Your task to perform on an android device: Open wifi settings Image 0: 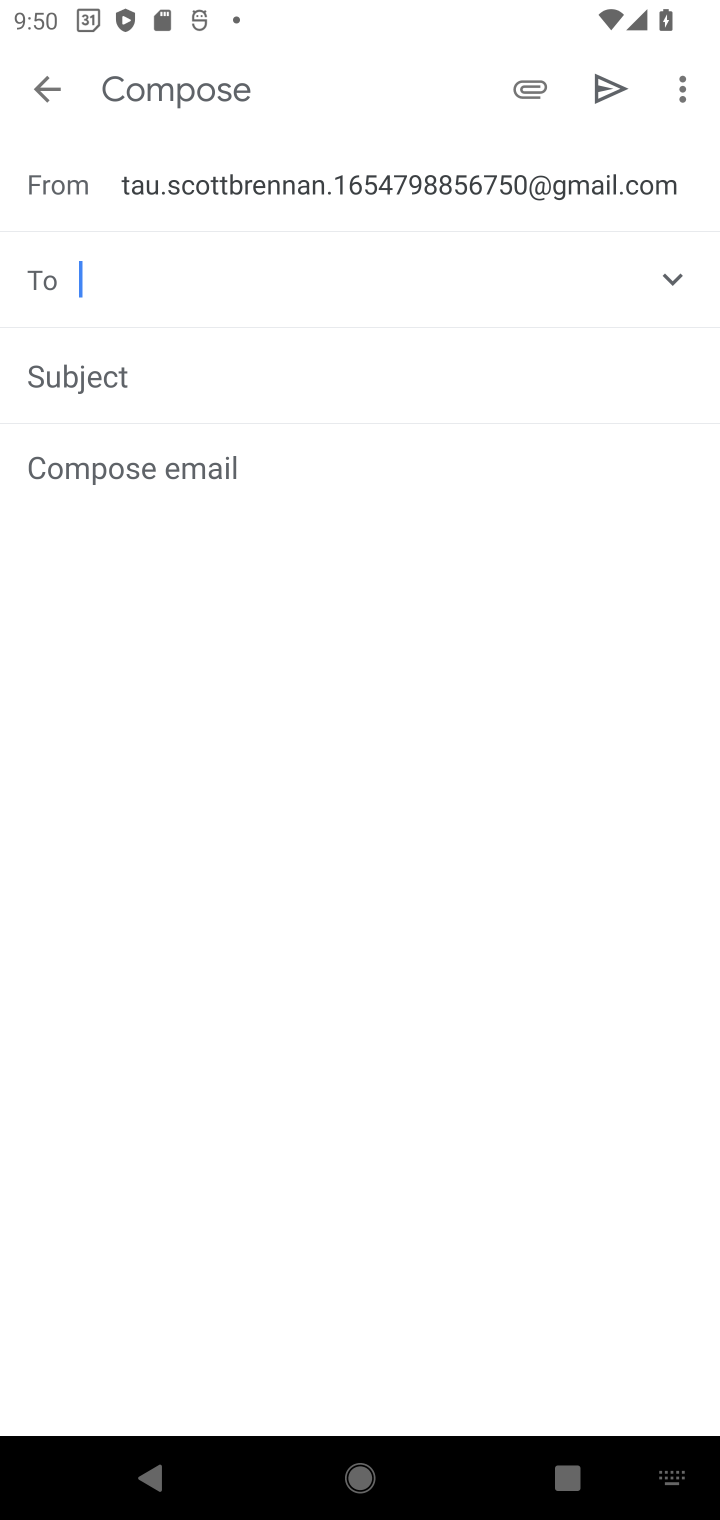
Step 0: press home button
Your task to perform on an android device: Open wifi settings Image 1: 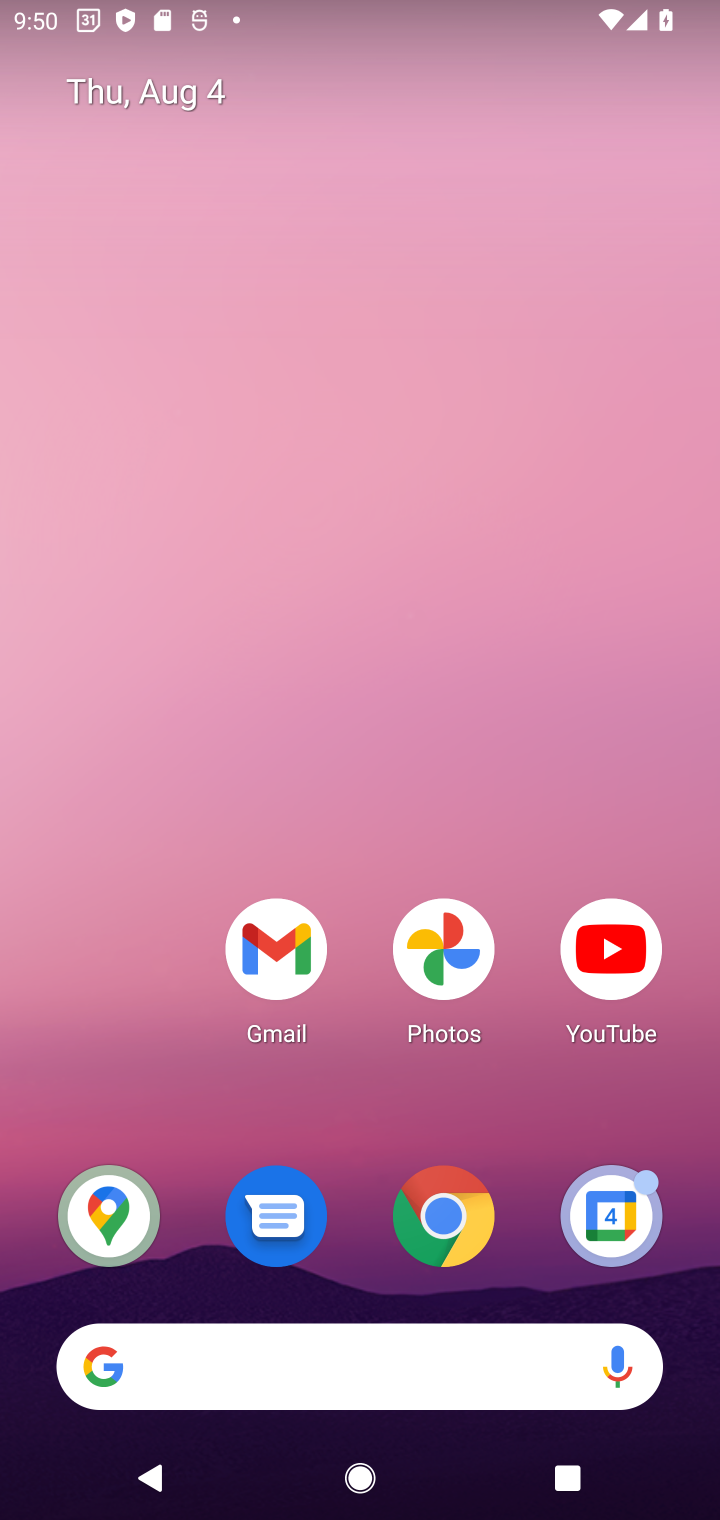
Step 1: drag from (318, 1396) to (472, 302)
Your task to perform on an android device: Open wifi settings Image 2: 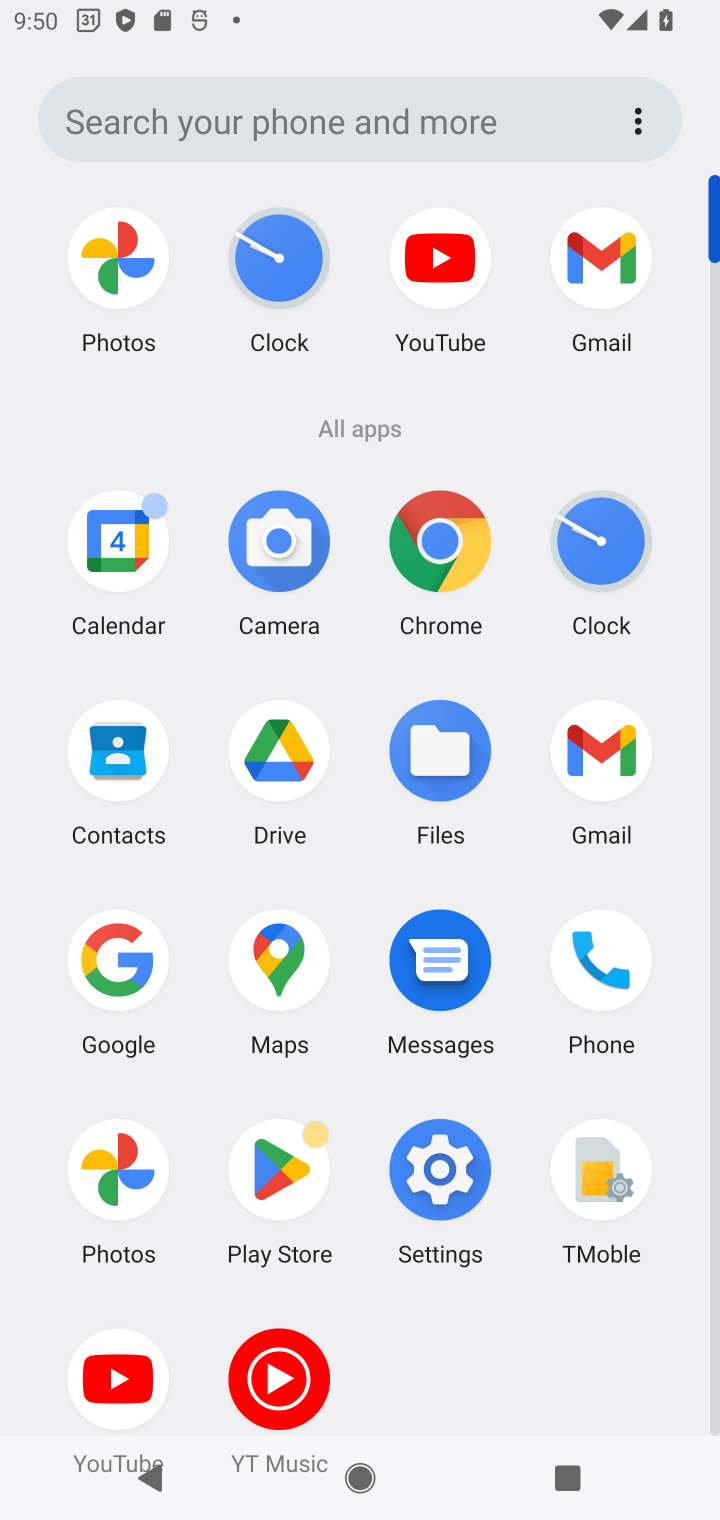
Step 2: click (436, 1170)
Your task to perform on an android device: Open wifi settings Image 3: 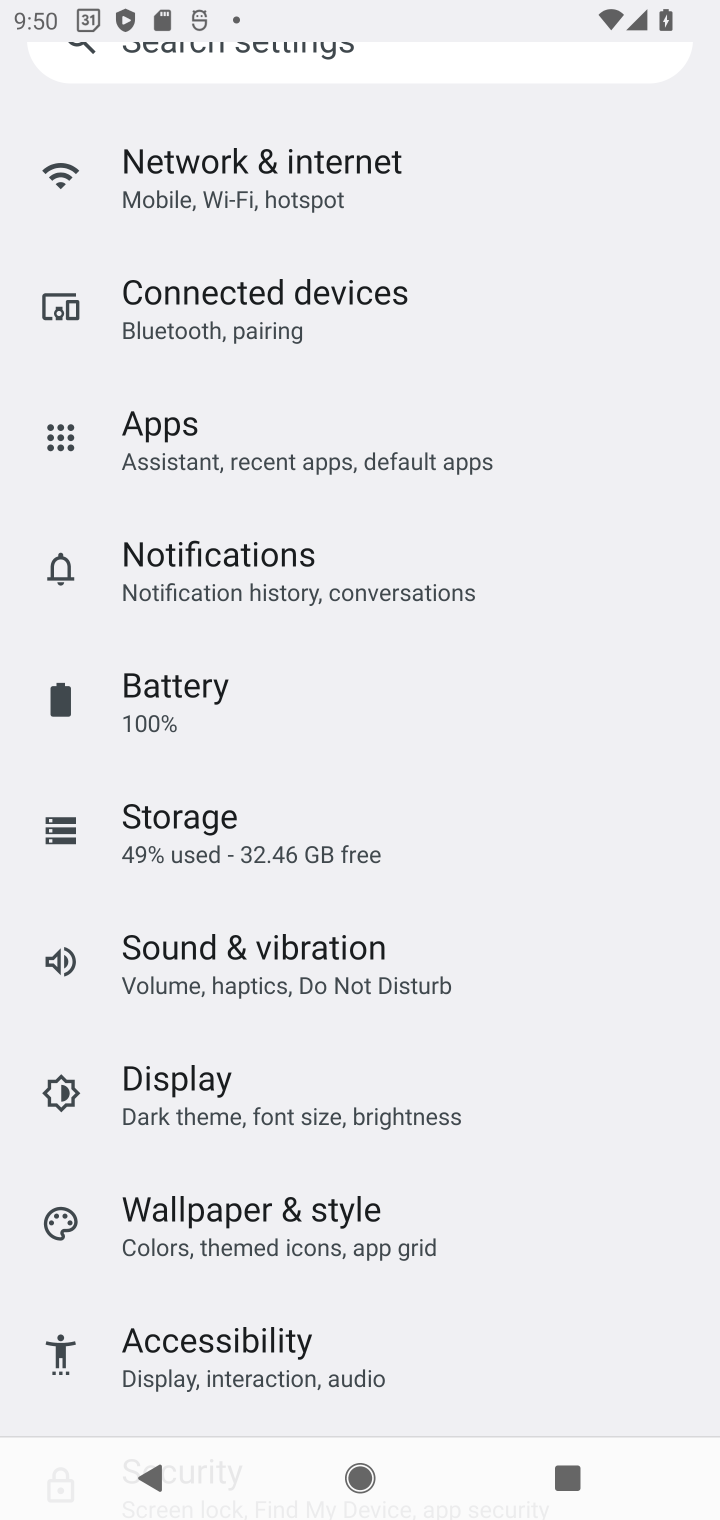
Step 3: click (288, 181)
Your task to perform on an android device: Open wifi settings Image 4: 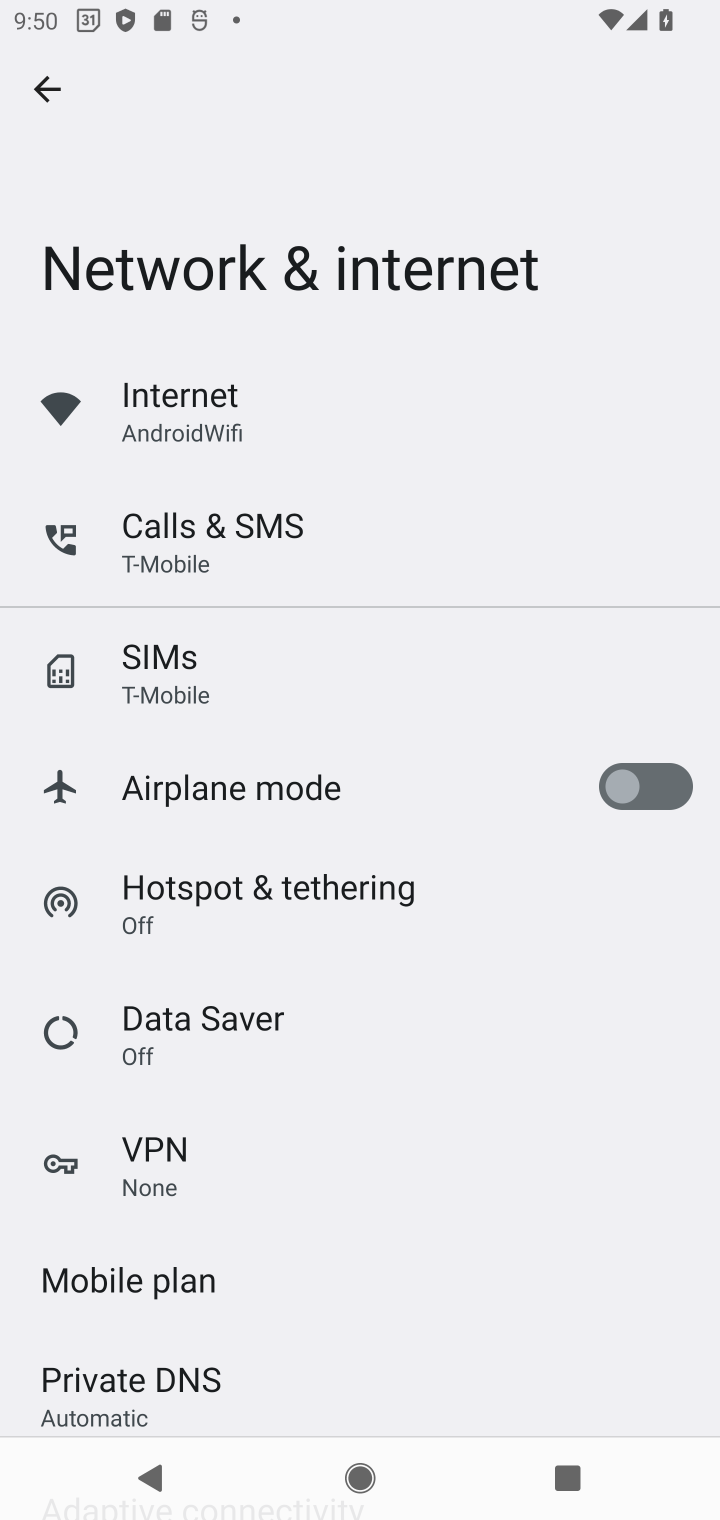
Step 4: click (194, 413)
Your task to perform on an android device: Open wifi settings Image 5: 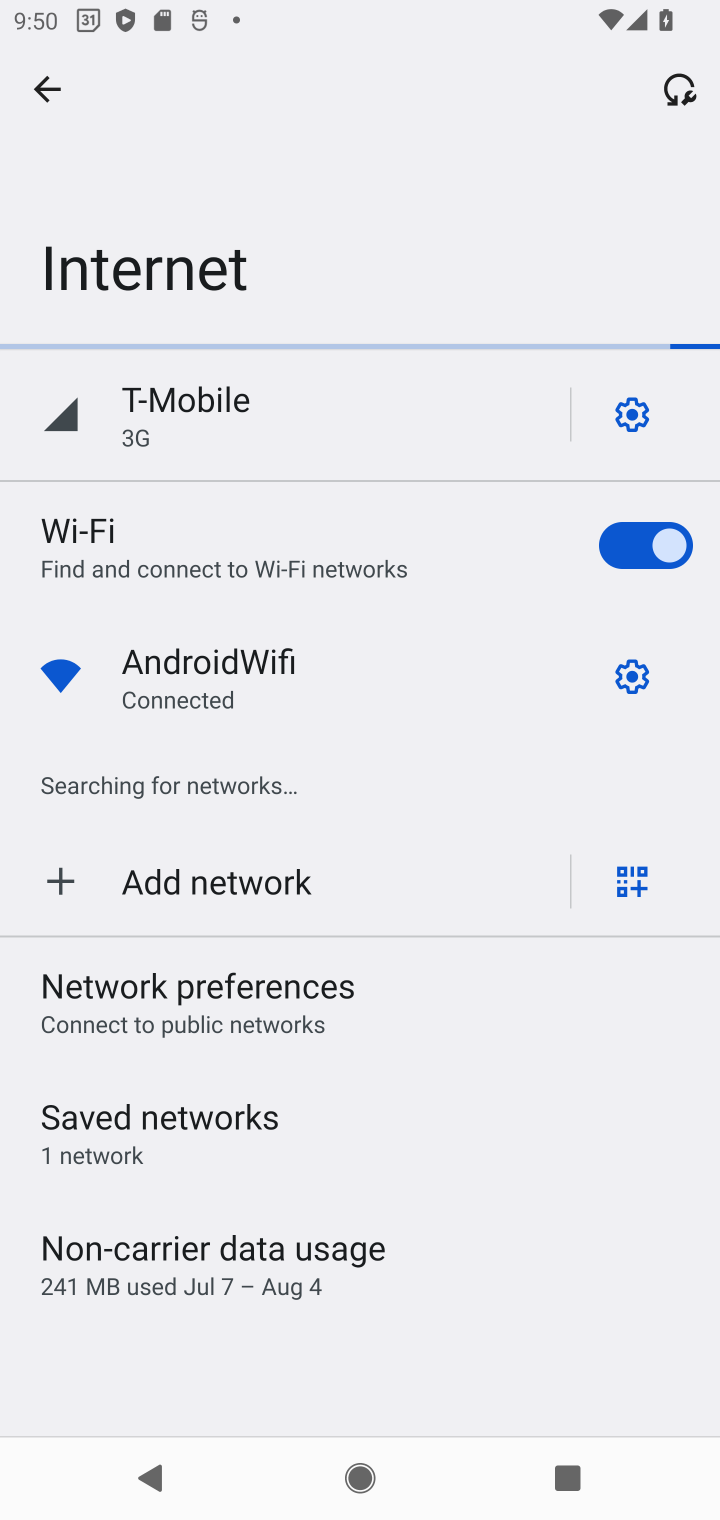
Step 5: click (631, 681)
Your task to perform on an android device: Open wifi settings Image 6: 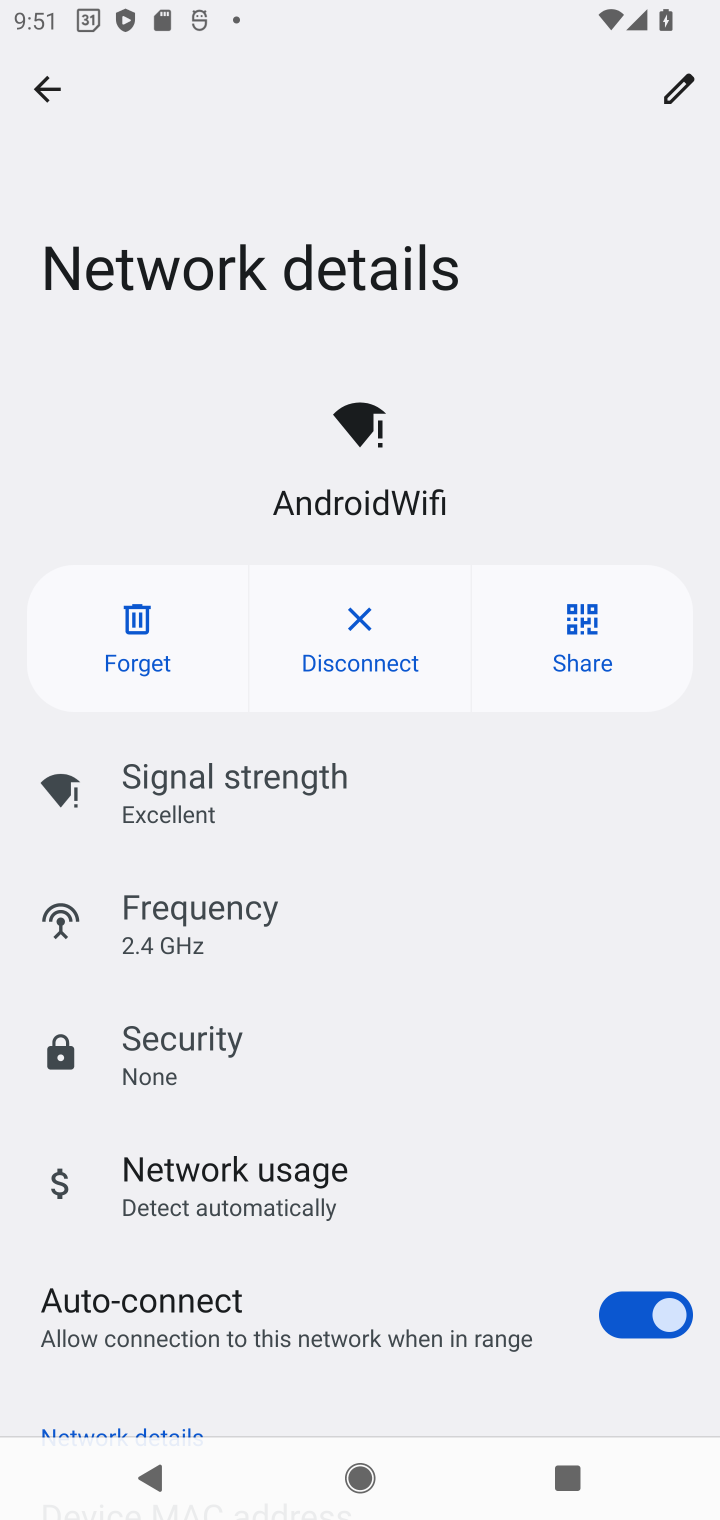
Step 6: task complete